Your task to perform on an android device: What's the news about the US stock market? Image 0: 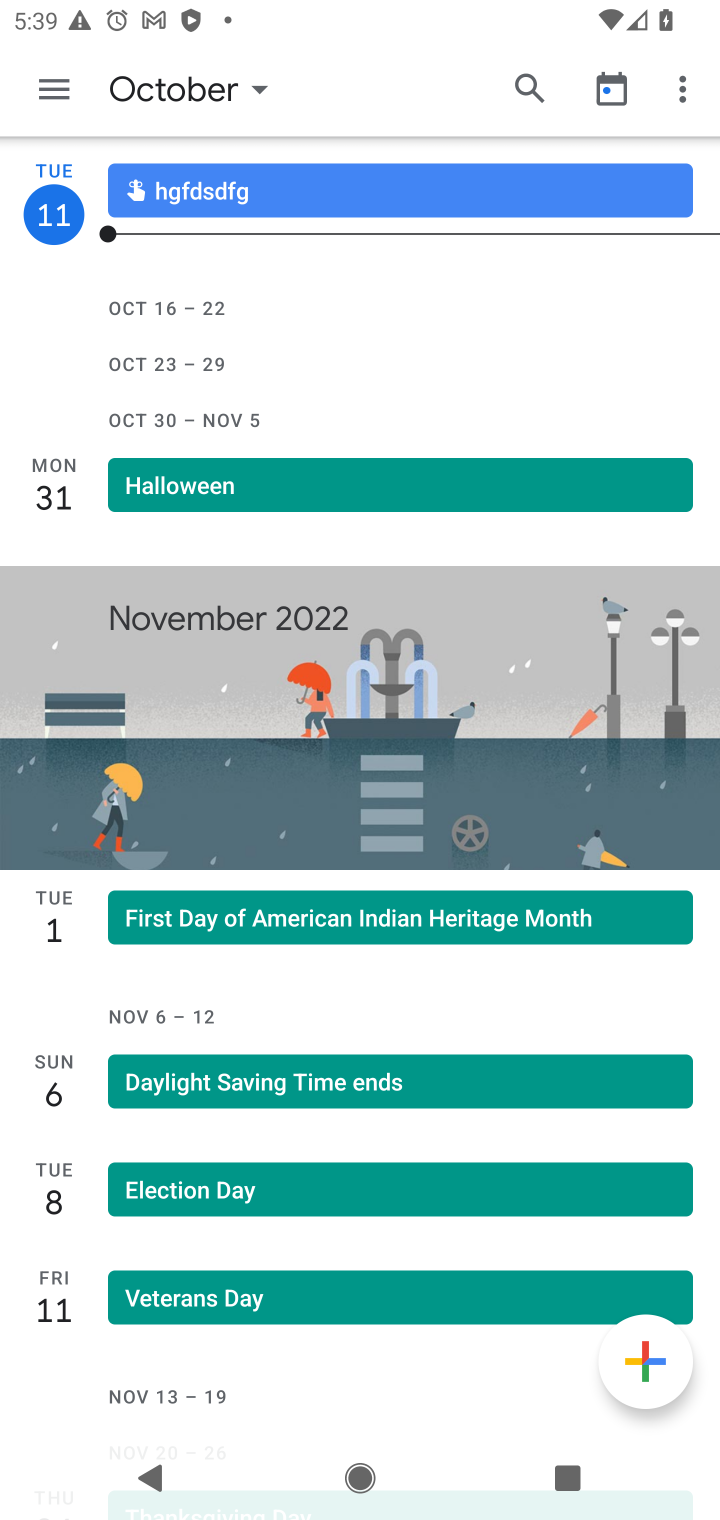
Step 0: press home button
Your task to perform on an android device: What's the news about the US stock market? Image 1: 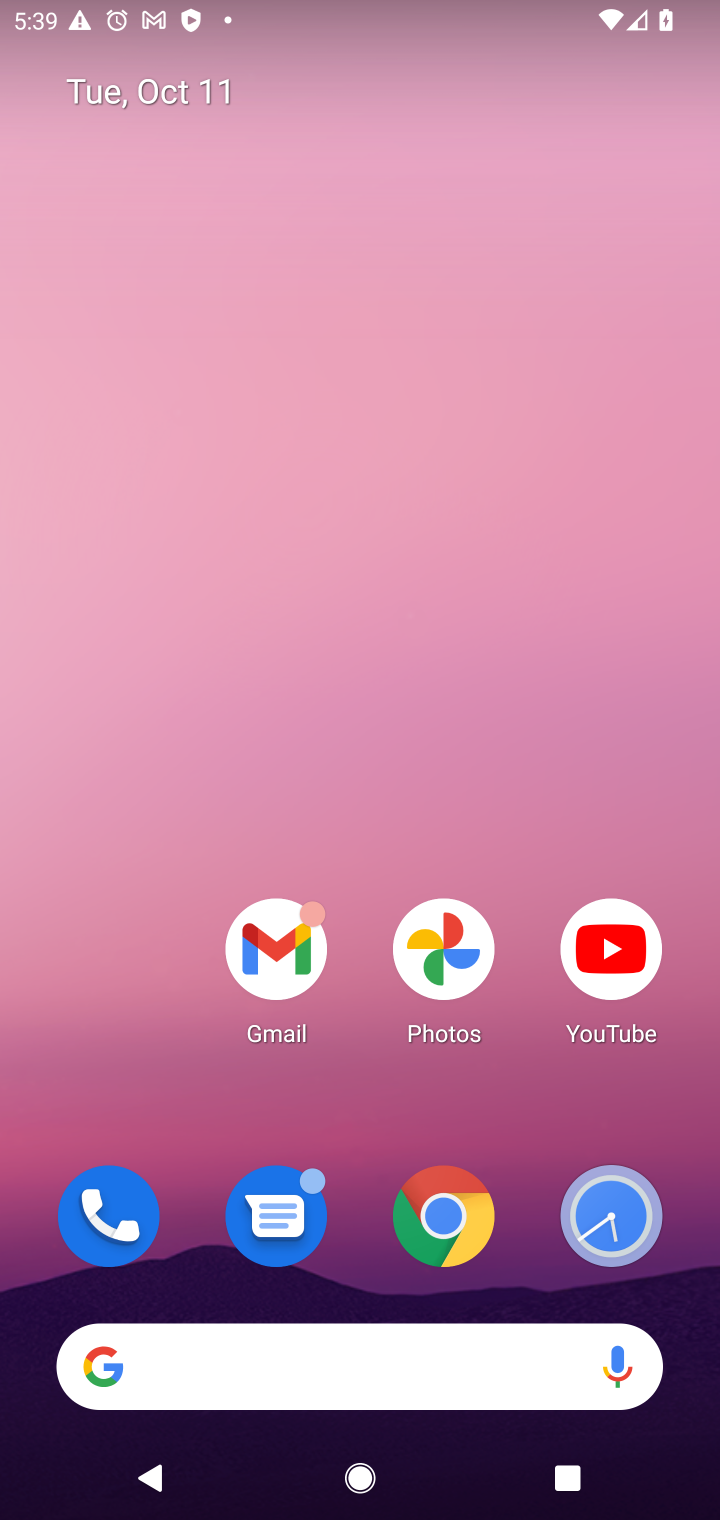
Step 1: click (470, 1239)
Your task to perform on an android device: What's the news about the US stock market? Image 2: 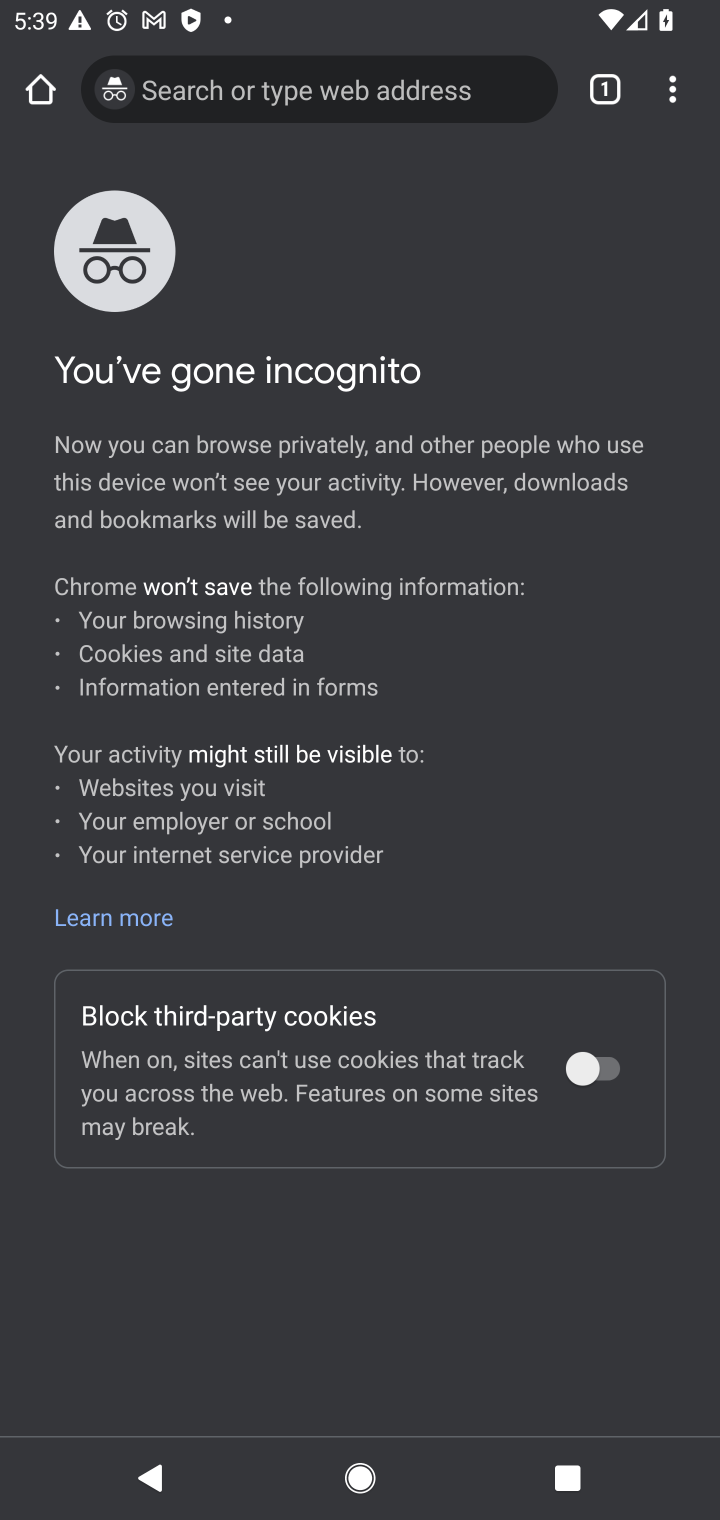
Step 2: click (340, 162)
Your task to perform on an android device: What's the news about the US stock market? Image 3: 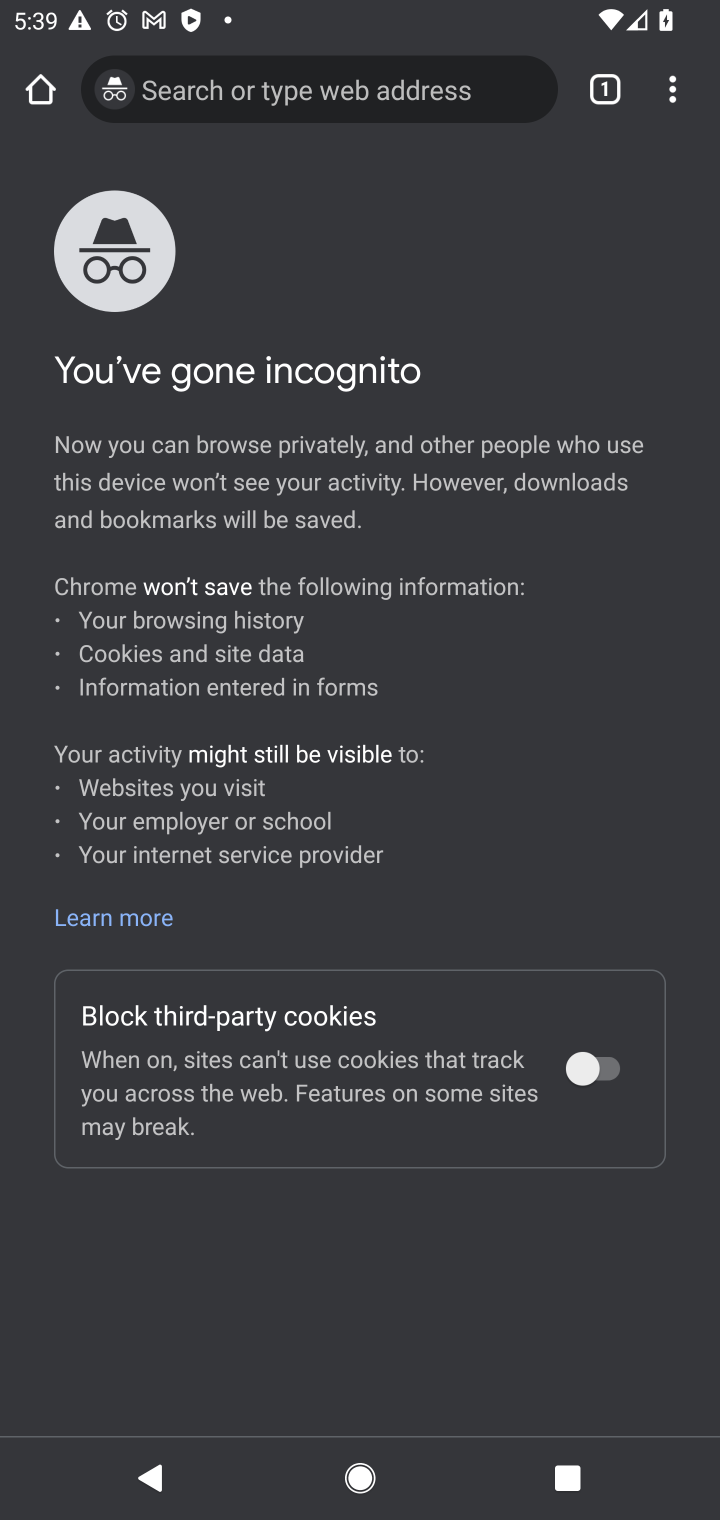
Step 3: click (335, 143)
Your task to perform on an android device: What's the news about the US stock market? Image 4: 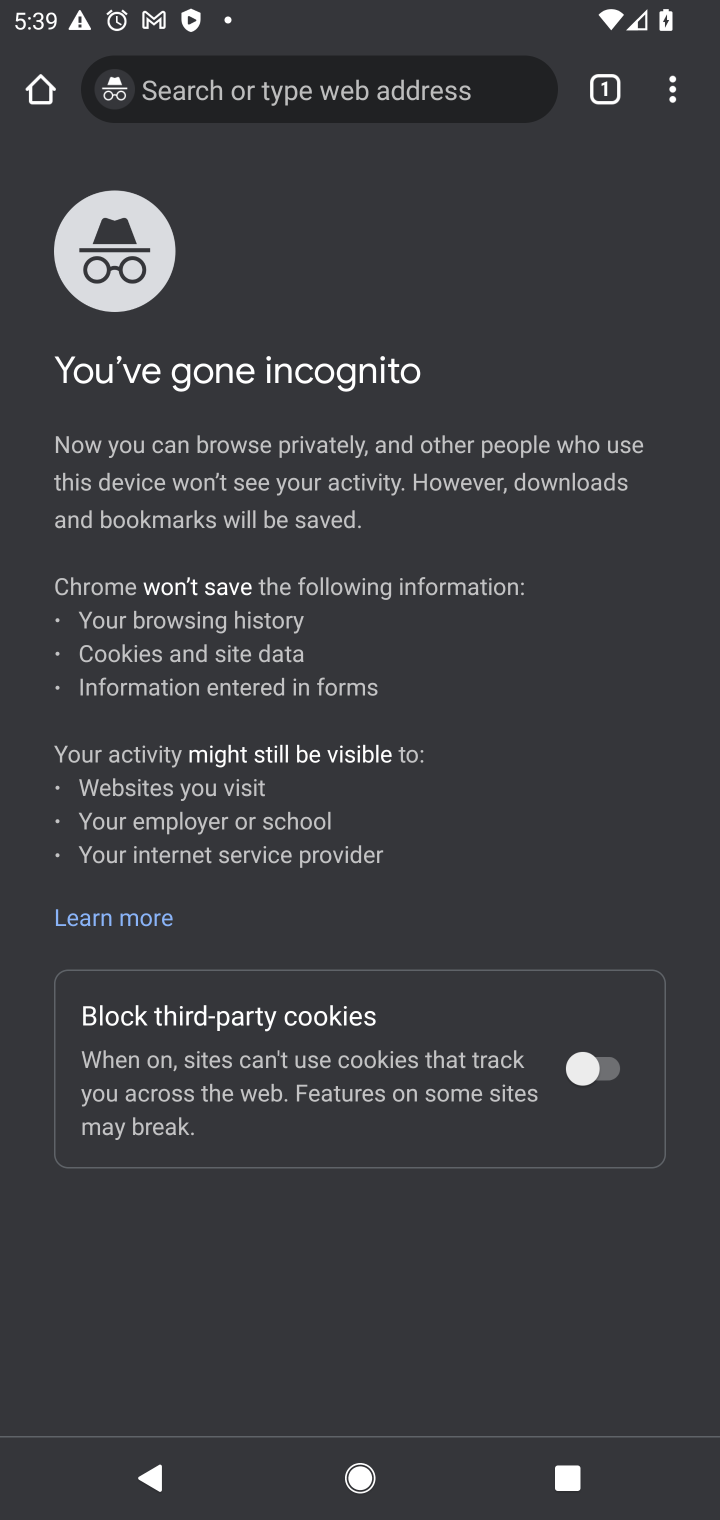
Step 4: click (316, 111)
Your task to perform on an android device: What's the news about the US stock market? Image 5: 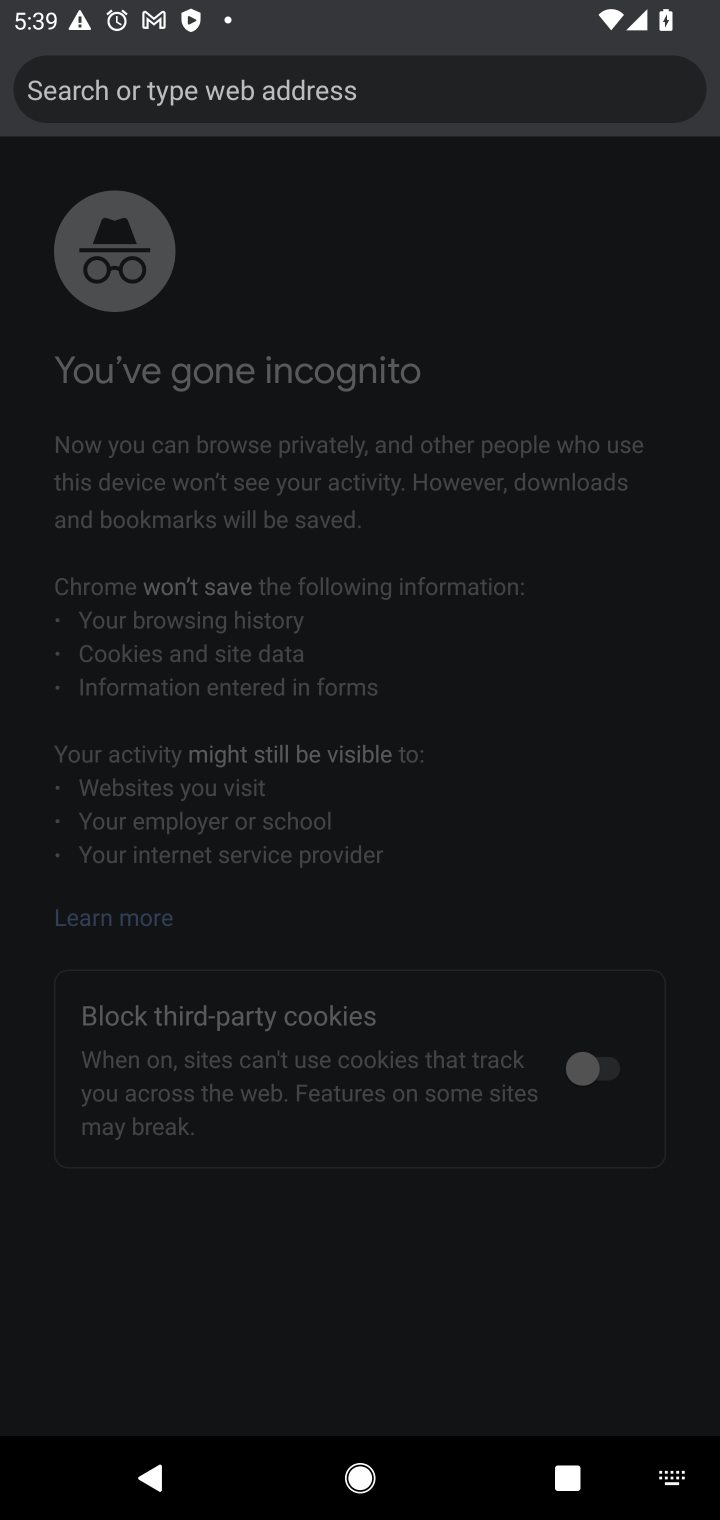
Step 5: type "What's the news about the US stock market?"
Your task to perform on an android device: What's the news about the US stock market? Image 6: 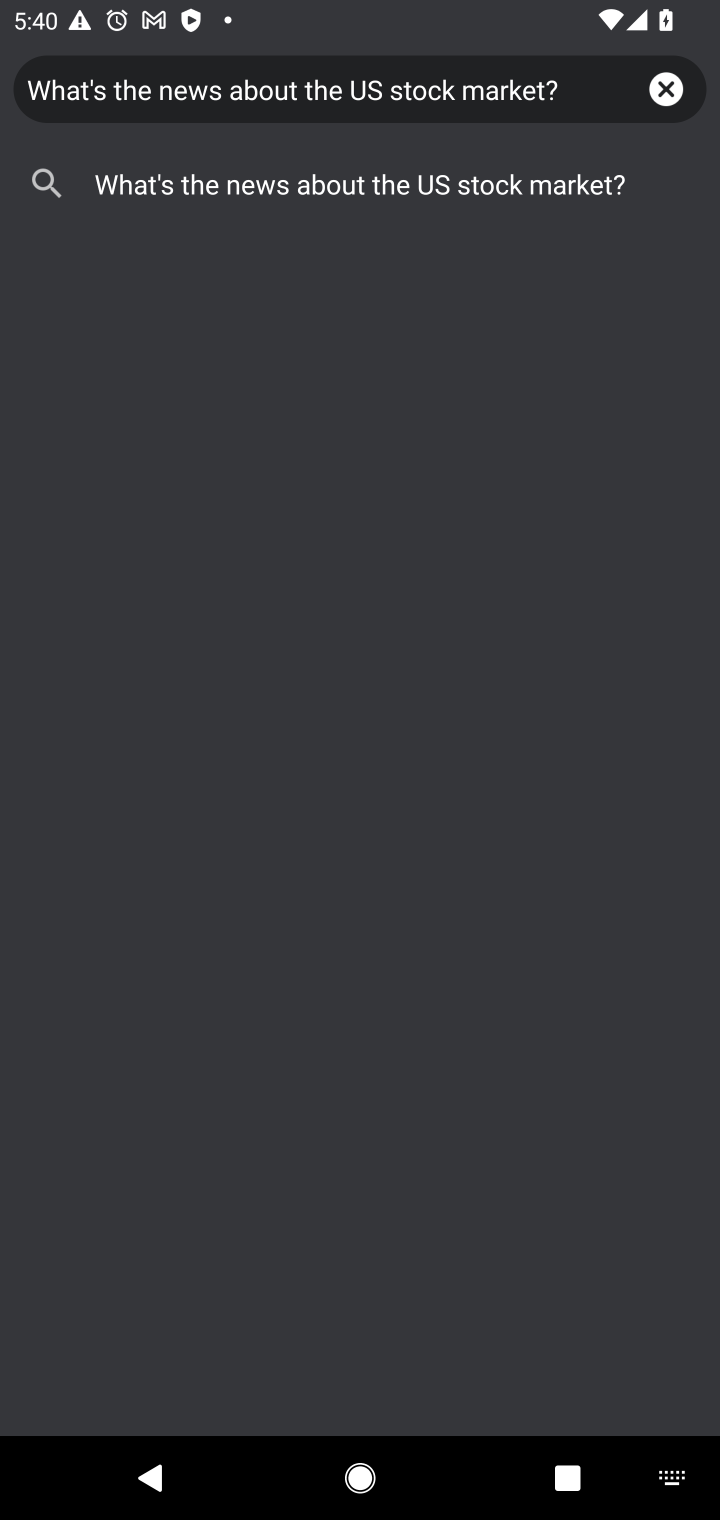
Step 6: press enter
Your task to perform on an android device: What's the news about the US stock market? Image 7: 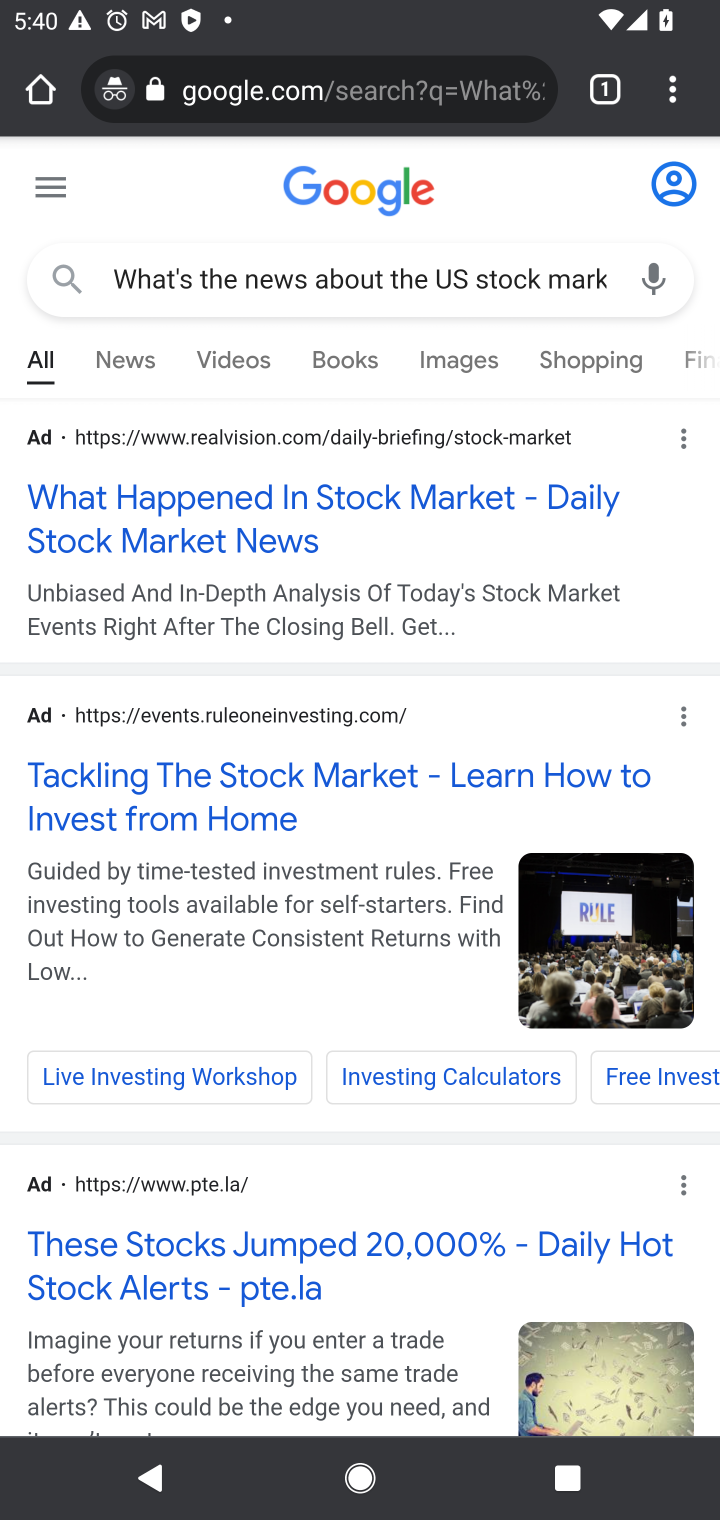
Step 7: click (147, 361)
Your task to perform on an android device: What's the news about the US stock market? Image 8: 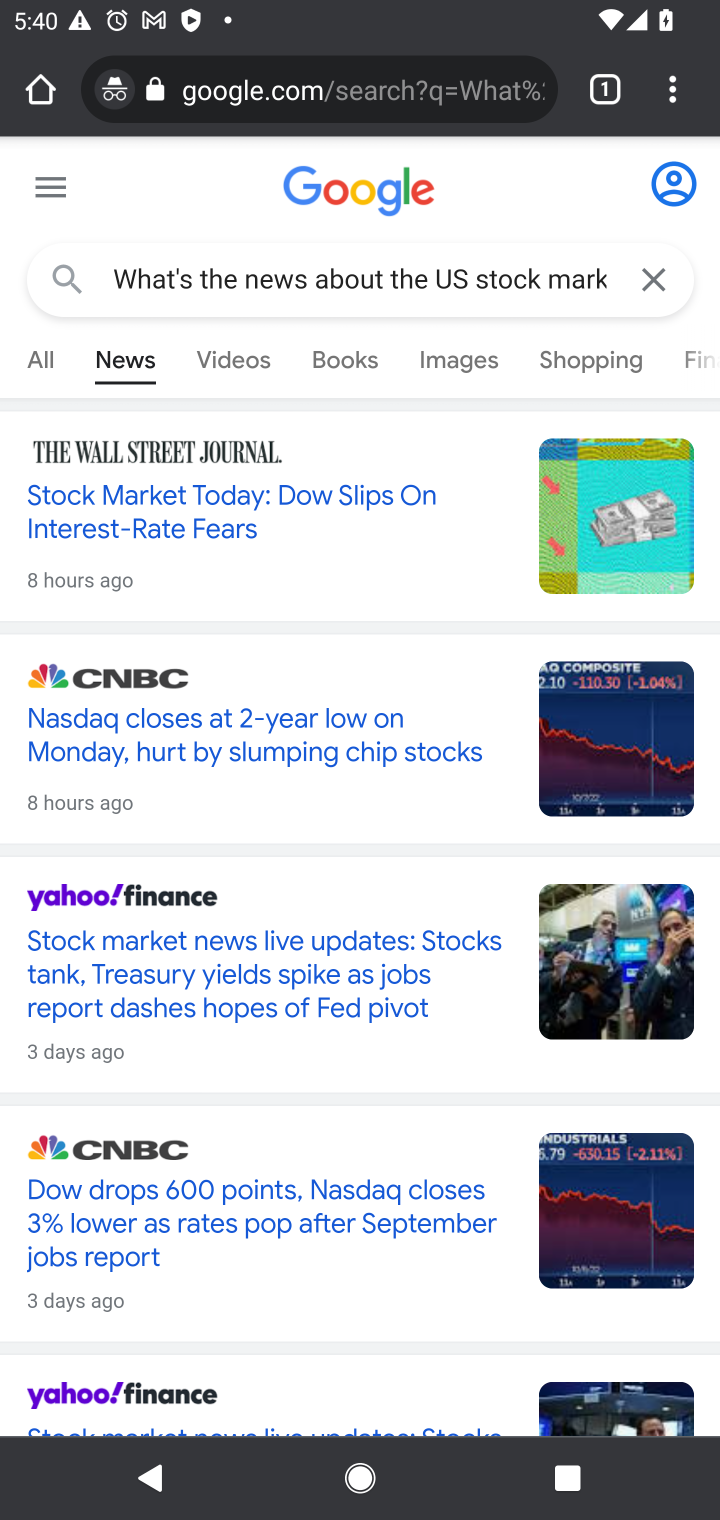
Step 8: task complete